Your task to perform on an android device: Search for the best rated circular saw on Lowes.com Image 0: 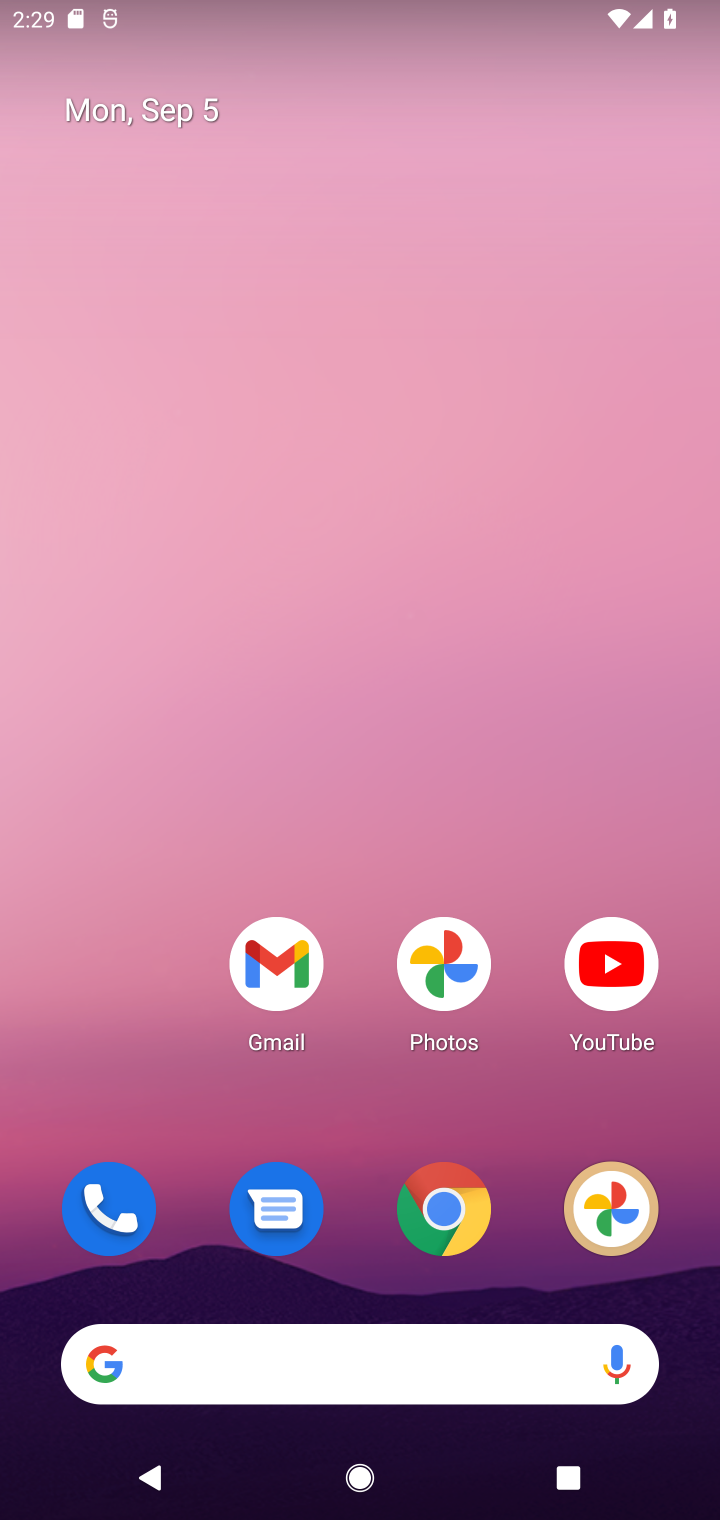
Step 0: click (262, 503)
Your task to perform on an android device: Search for the best rated circular saw on Lowes.com Image 1: 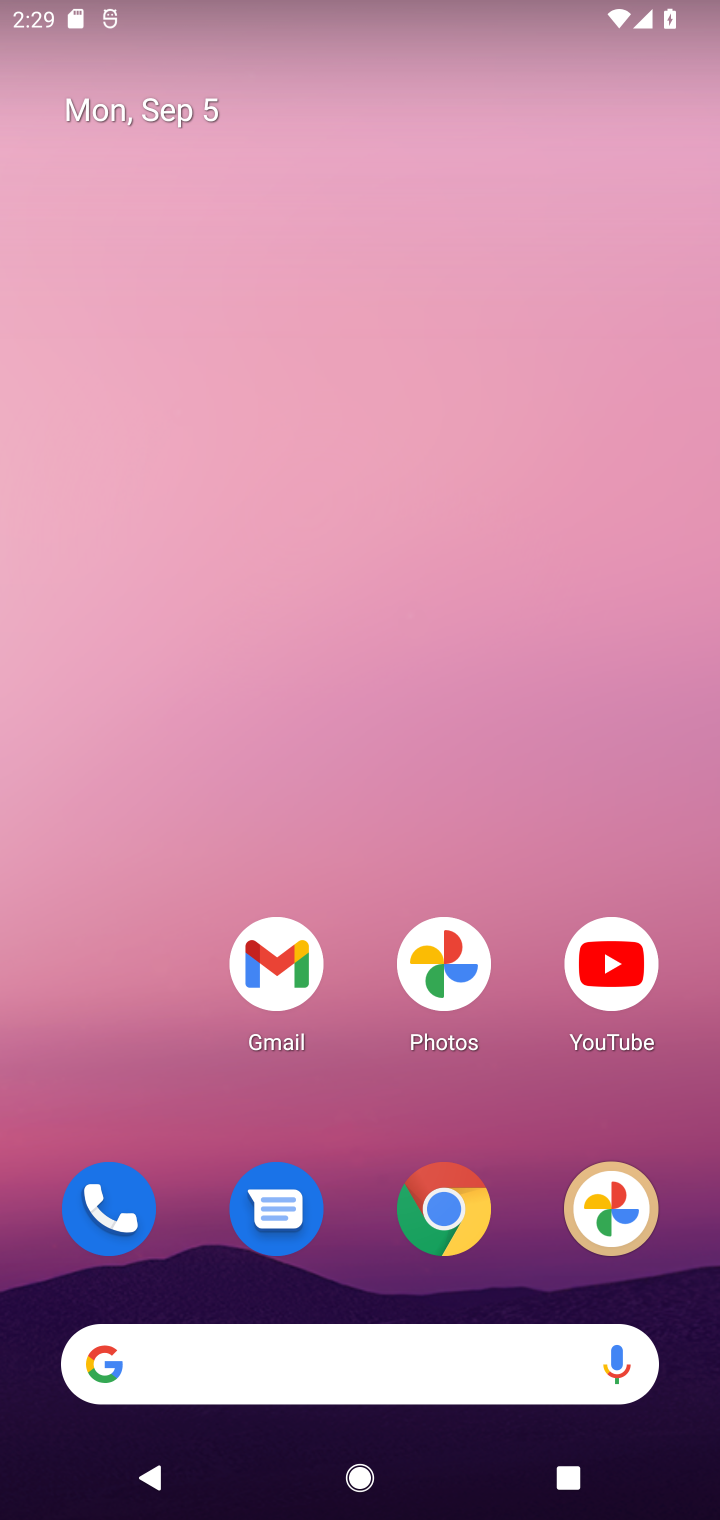
Step 1: drag from (345, 1314) to (349, 442)
Your task to perform on an android device: Search for the best rated circular saw on Lowes.com Image 2: 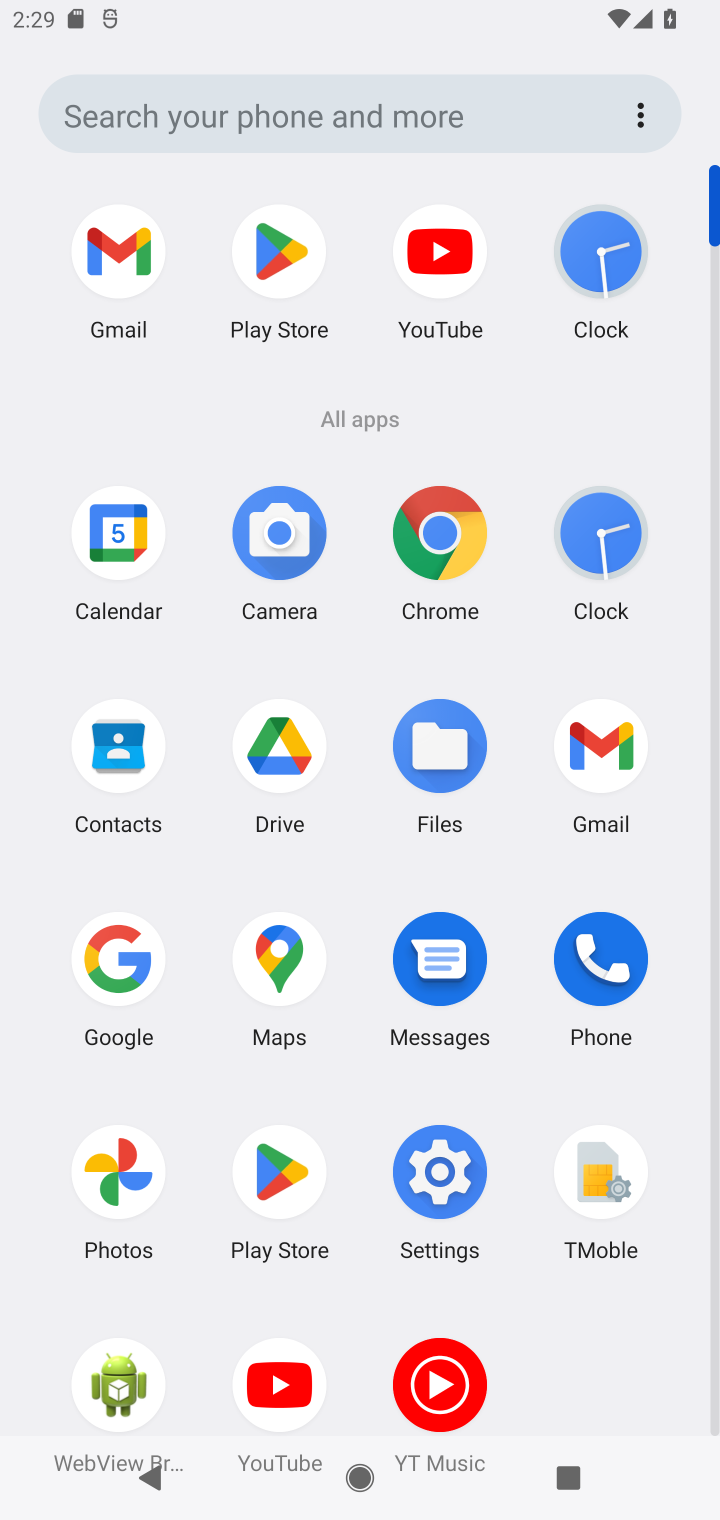
Step 2: click (75, 949)
Your task to perform on an android device: Search for the best rated circular saw on Lowes.com Image 3: 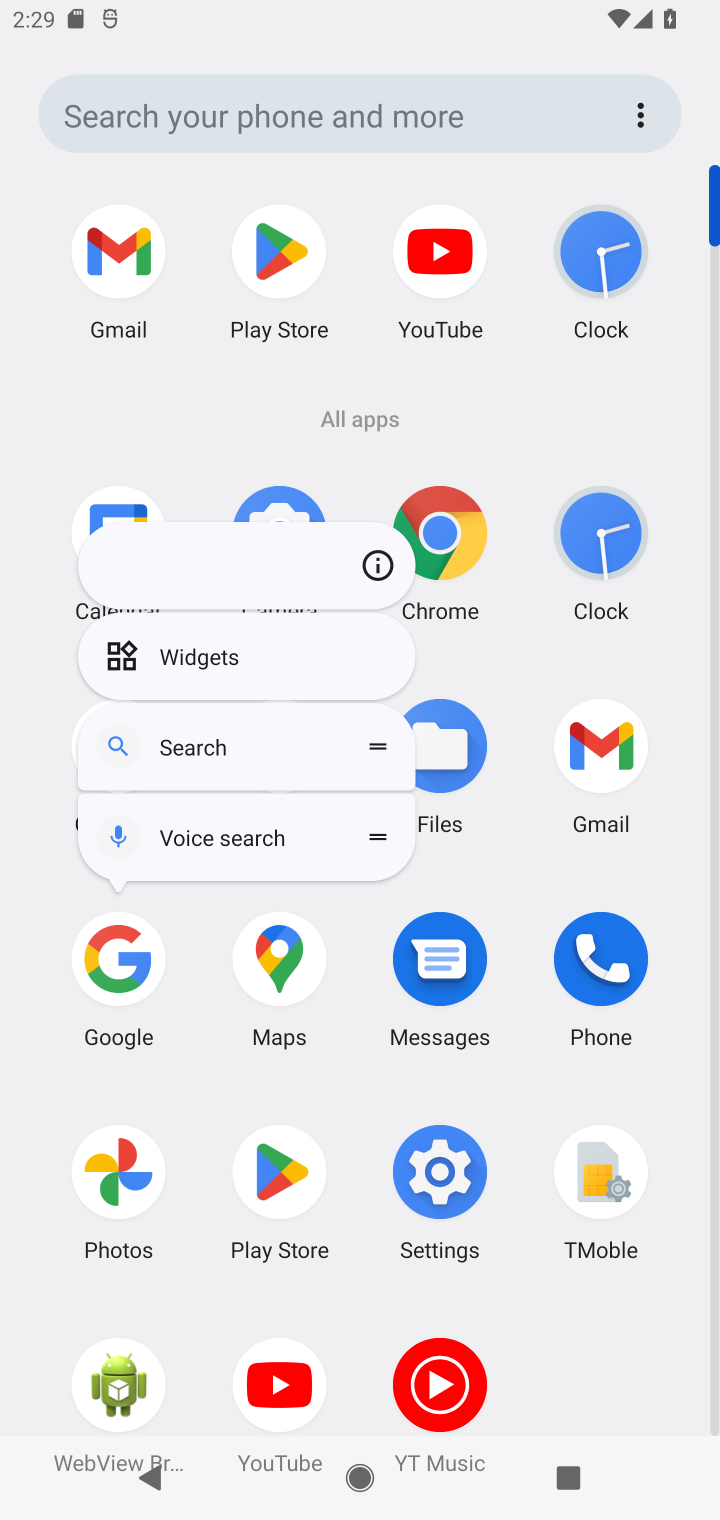
Step 3: click (111, 974)
Your task to perform on an android device: Search for the best rated circular saw on Lowes.com Image 4: 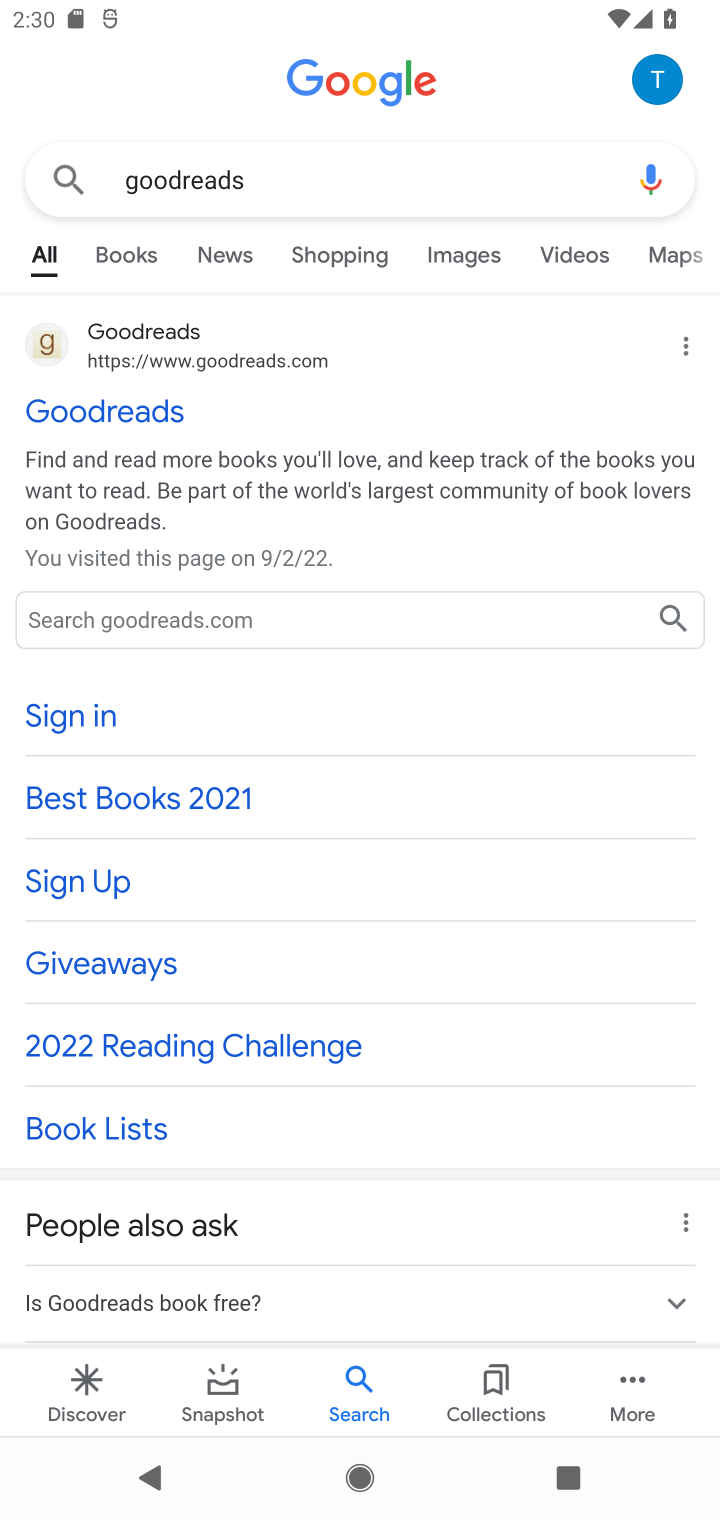
Step 4: click (190, 175)
Your task to perform on an android device: Search for the best rated circular saw on Lowes.com Image 5: 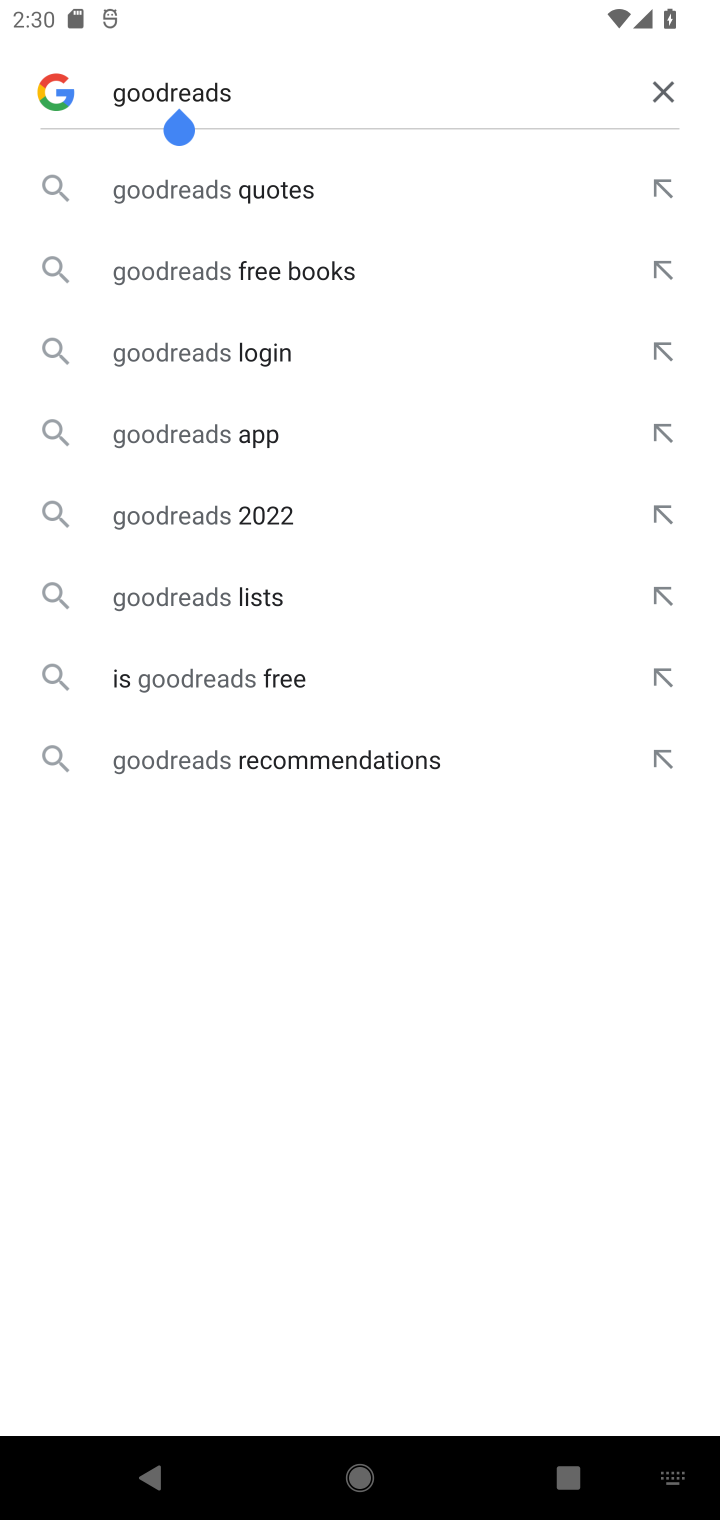
Step 5: click (654, 90)
Your task to perform on an android device: Search for the best rated circular saw on Lowes.com Image 6: 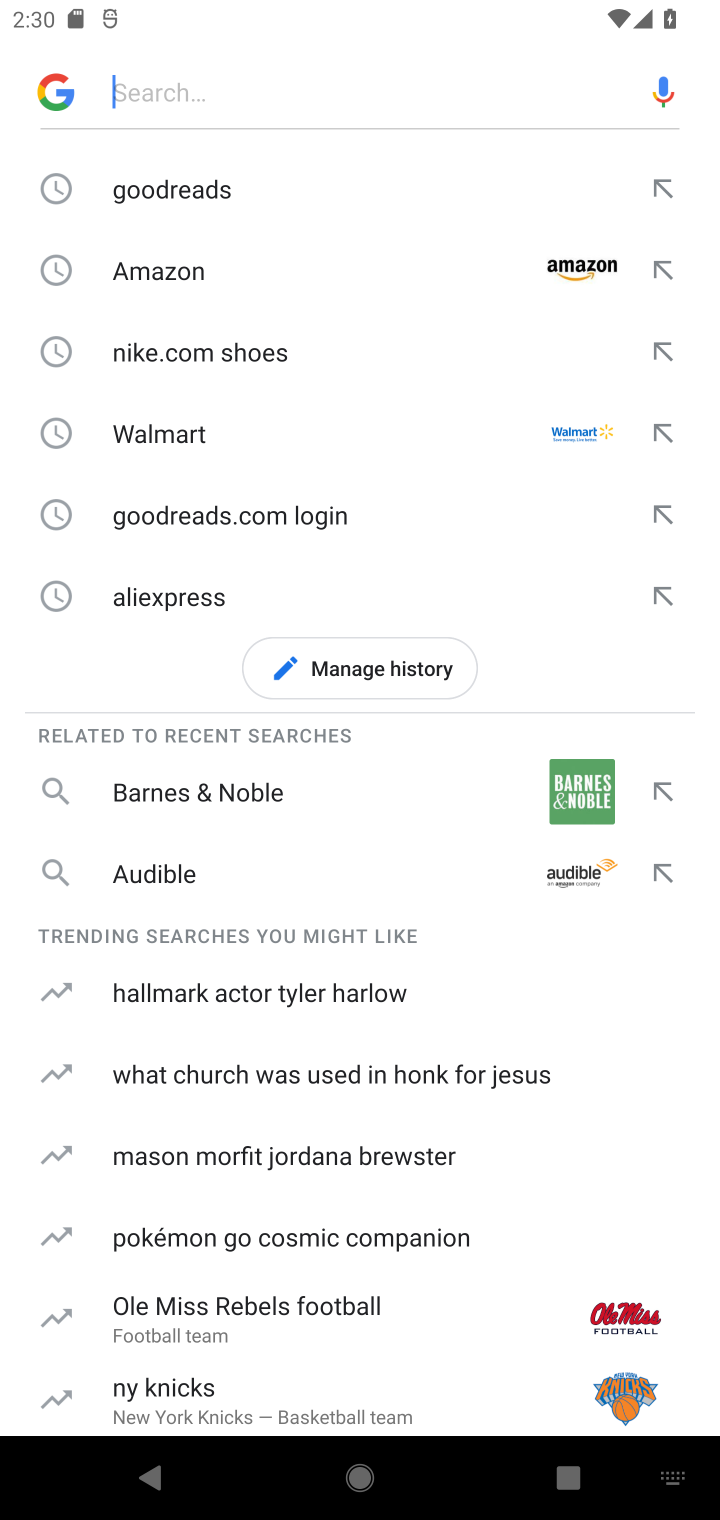
Step 6: type "Lowes.com"
Your task to perform on an android device: Search for the best rated circular saw on Lowes.com Image 7: 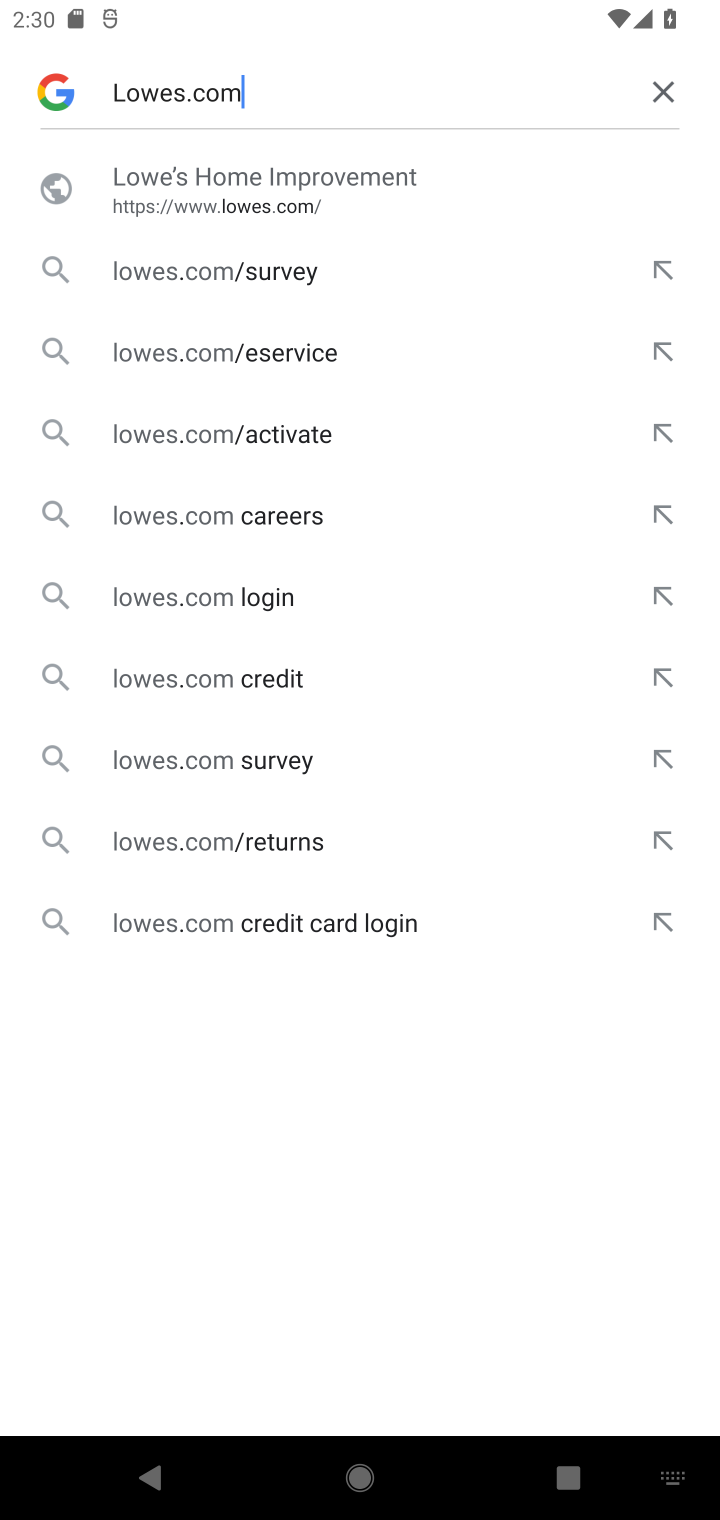
Step 7: click (162, 192)
Your task to perform on an android device: Search for the best rated circular saw on Lowes.com Image 8: 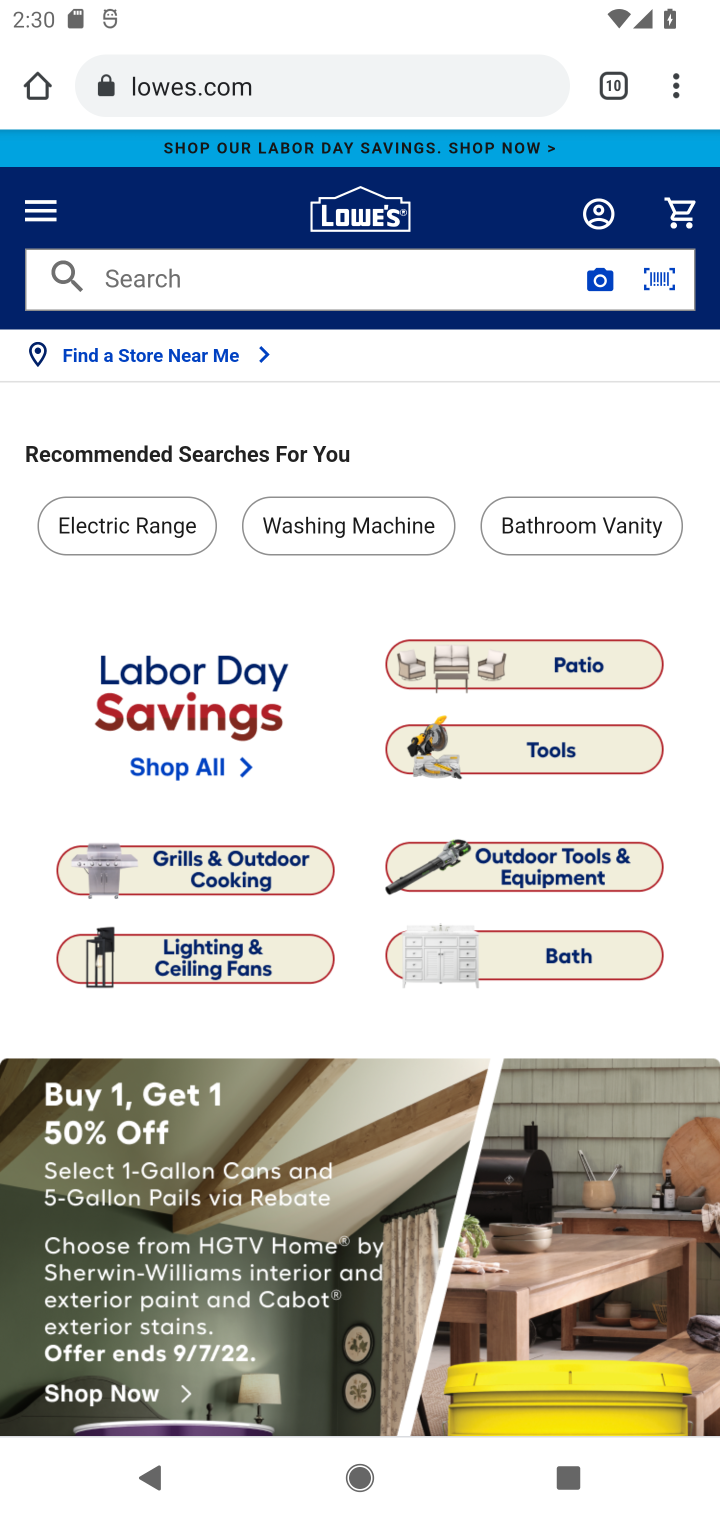
Step 8: click (112, 281)
Your task to perform on an android device: Search for the best rated circular saw on Lowes.com Image 9: 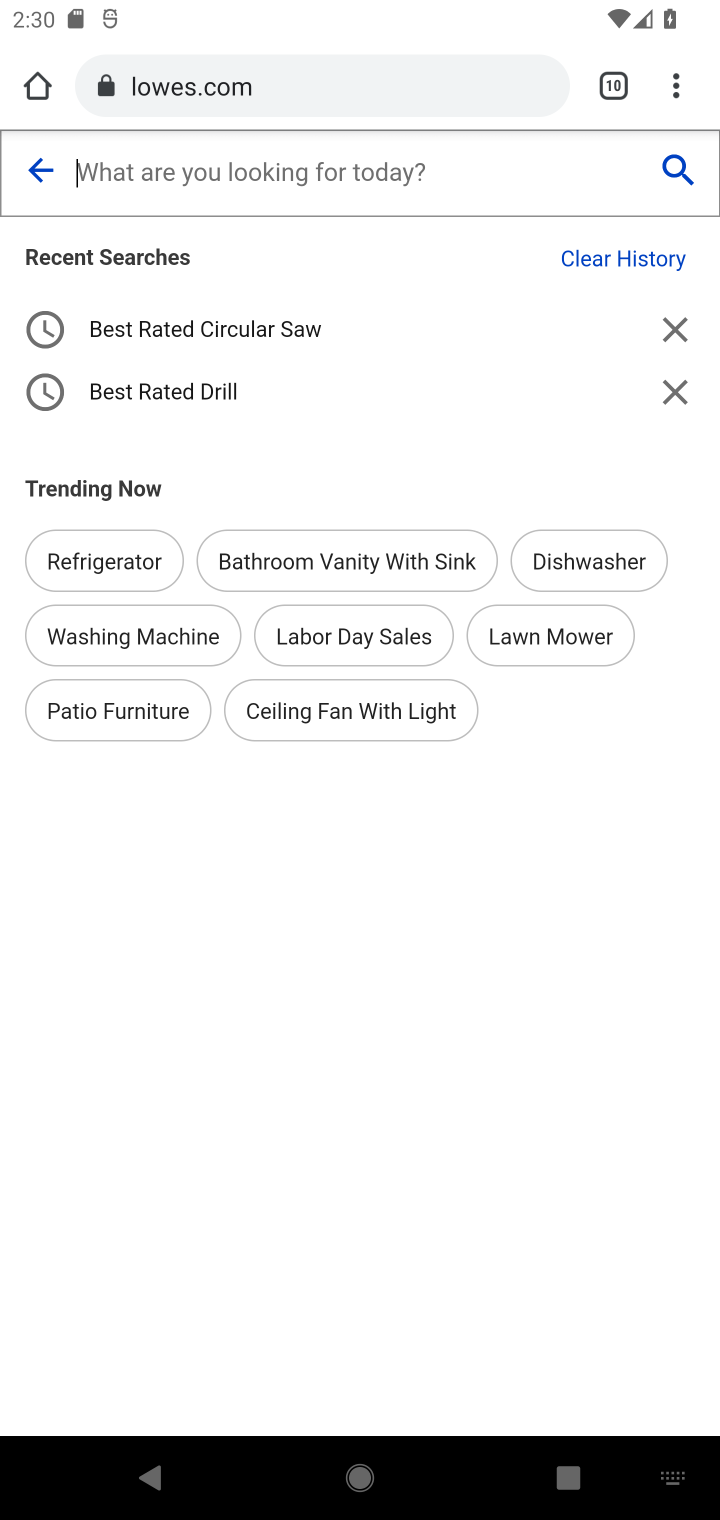
Step 9: type "best rated circular saw"
Your task to perform on an android device: Search for the best rated circular saw on Lowes.com Image 10: 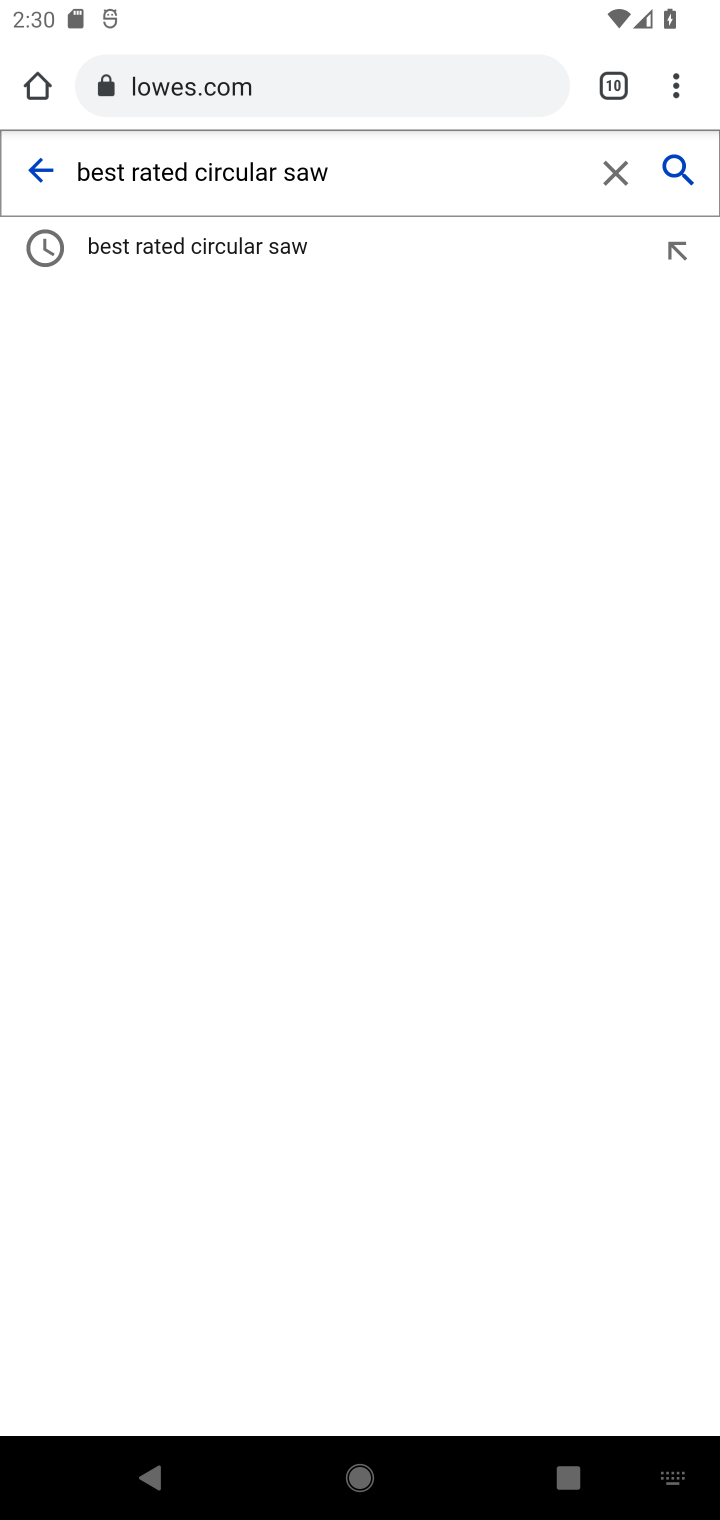
Step 10: click (183, 245)
Your task to perform on an android device: Search for the best rated circular saw on Lowes.com Image 11: 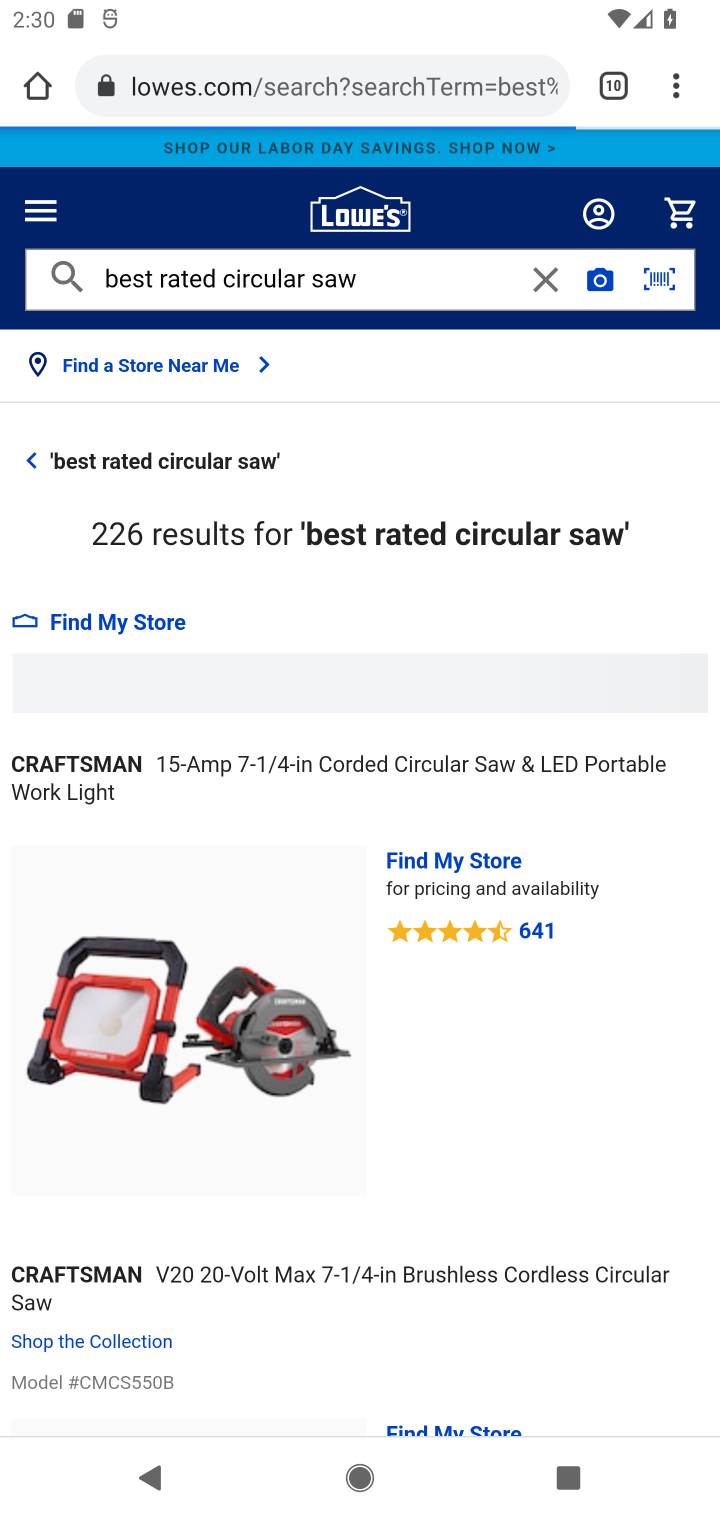
Step 11: click (382, 617)
Your task to perform on an android device: Search for the best rated circular saw on Lowes.com Image 12: 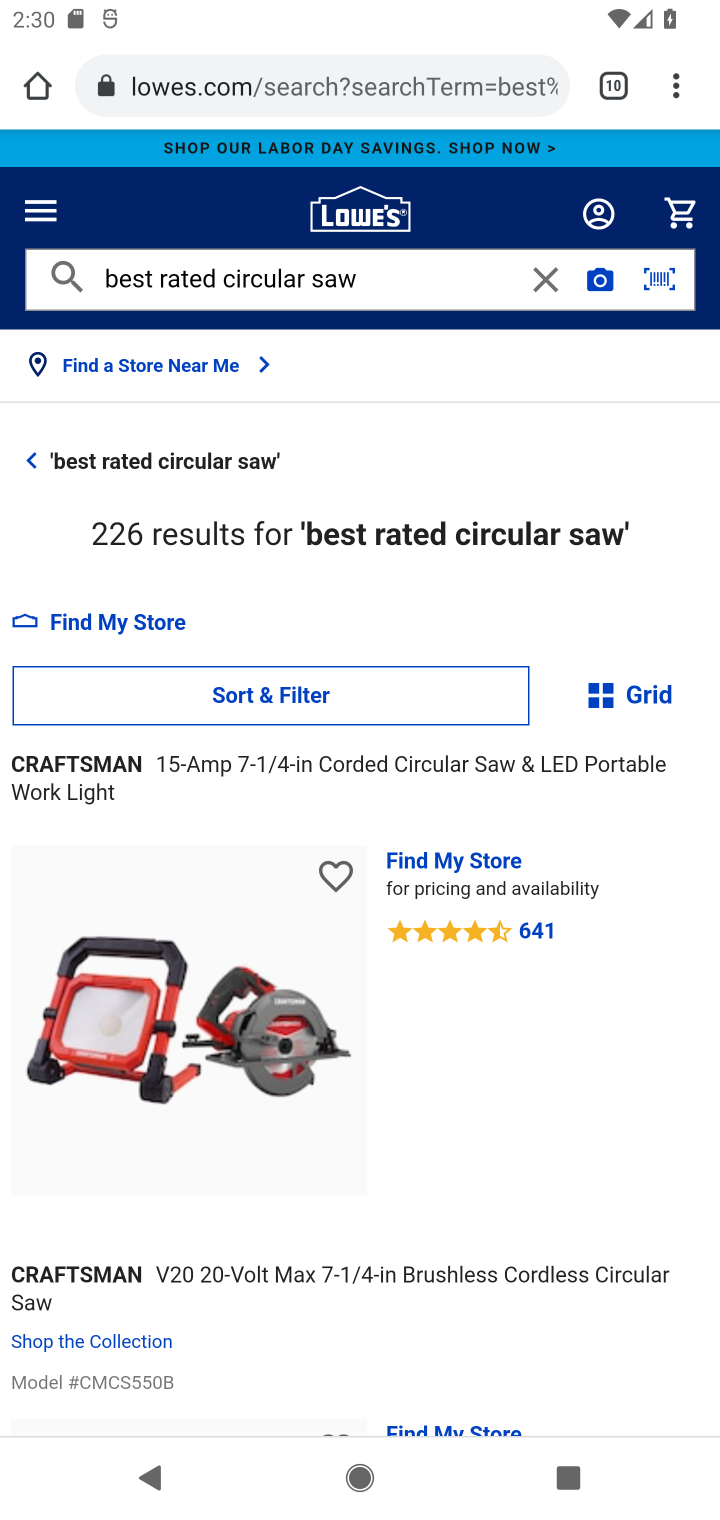
Step 12: click (345, 539)
Your task to perform on an android device: Search for the best rated circular saw on Lowes.com Image 13: 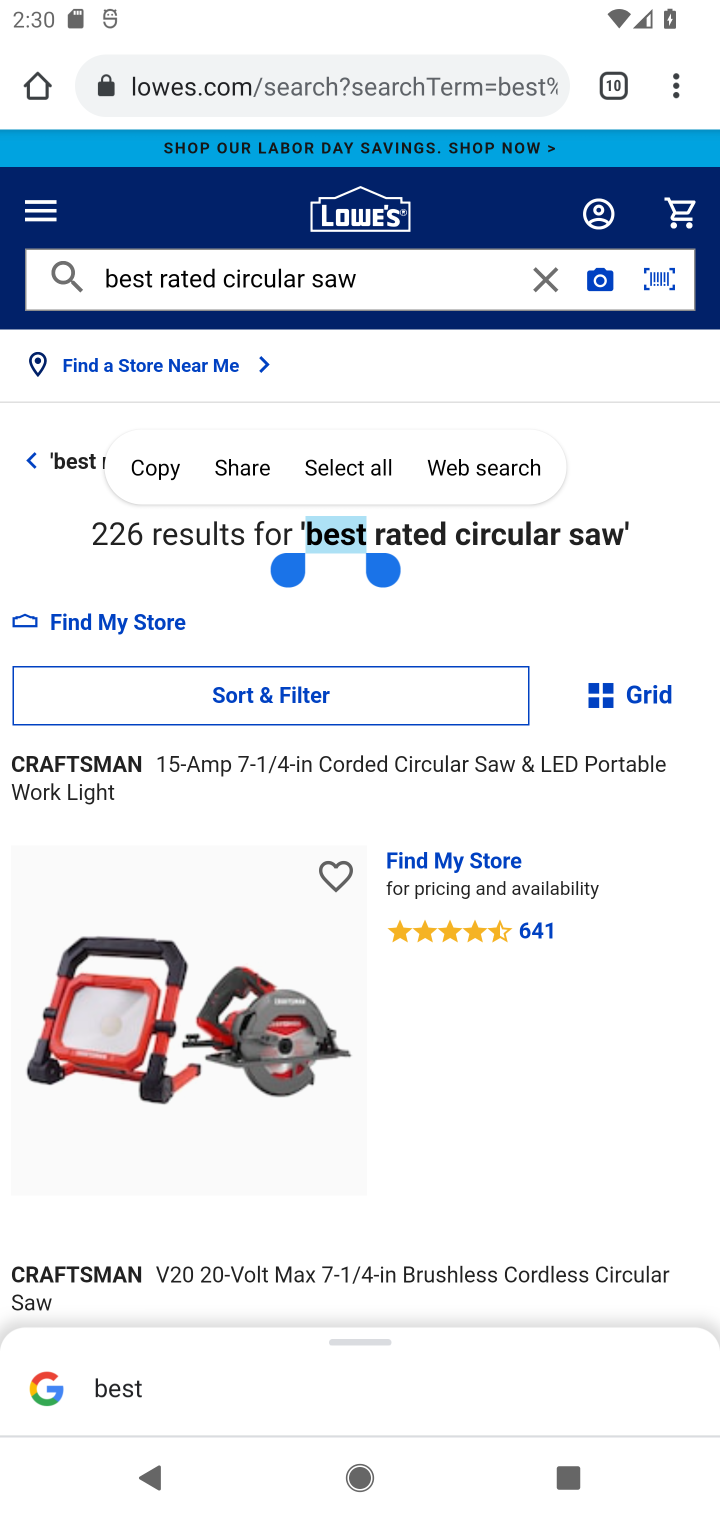
Step 13: task complete